Your task to perform on an android device: Is it going to rain today? Image 0: 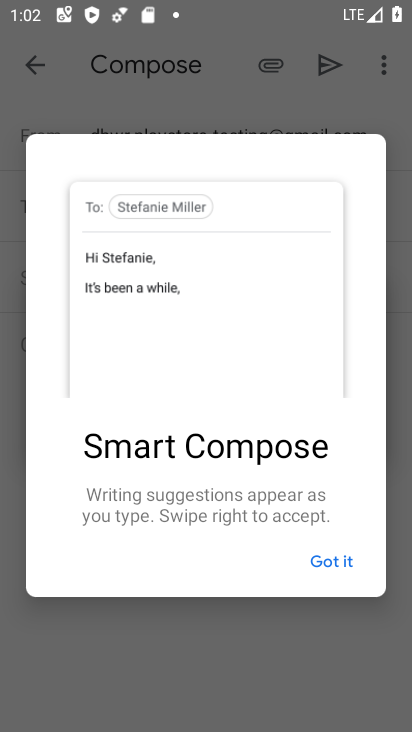
Step 0: press home button
Your task to perform on an android device: Is it going to rain today? Image 1: 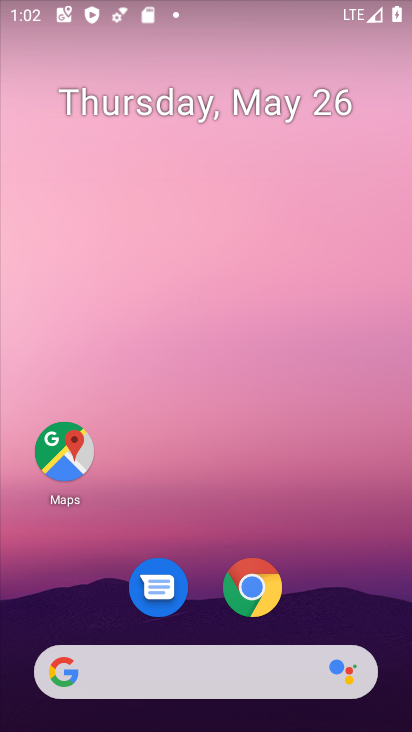
Step 1: click (204, 671)
Your task to perform on an android device: Is it going to rain today? Image 2: 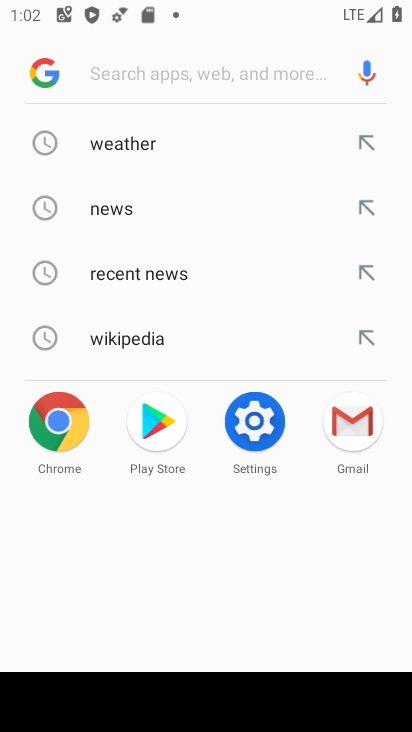
Step 2: click (124, 142)
Your task to perform on an android device: Is it going to rain today? Image 3: 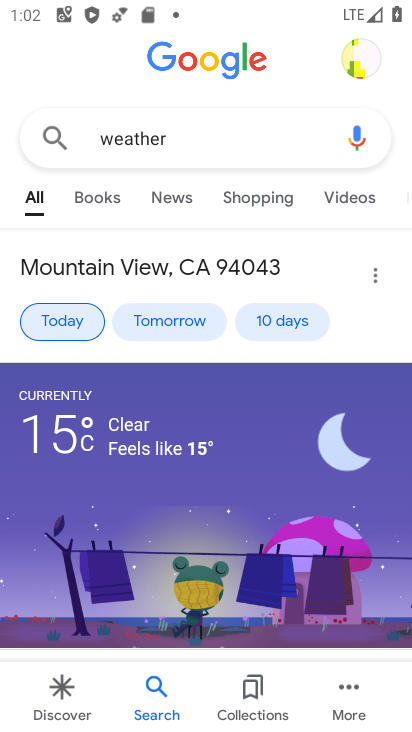
Step 3: task complete